Your task to perform on an android device: What's the news in Japan? Image 0: 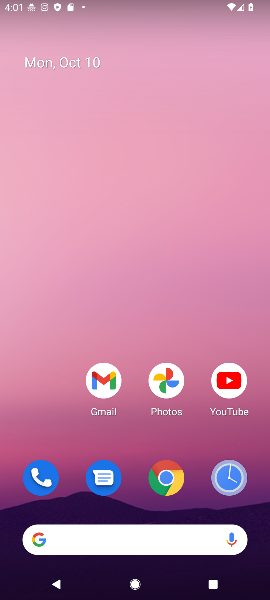
Step 0: click (169, 480)
Your task to perform on an android device: What's the news in Japan? Image 1: 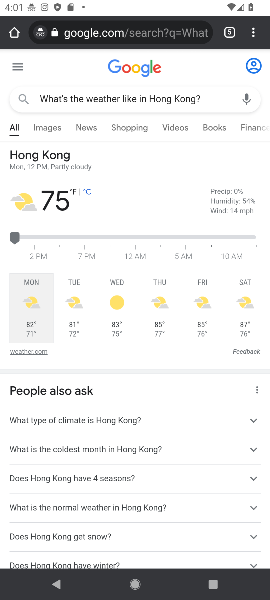
Step 1: click (123, 44)
Your task to perform on an android device: What's the news in Japan? Image 2: 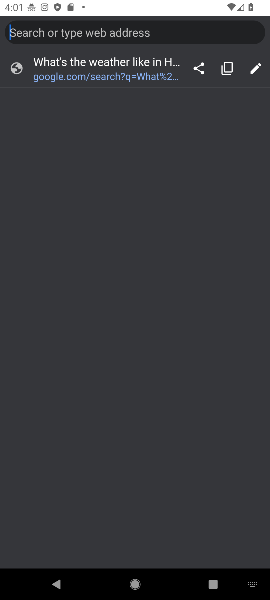
Step 2: type "the news in Japan?"
Your task to perform on an android device: What's the news in Japan? Image 3: 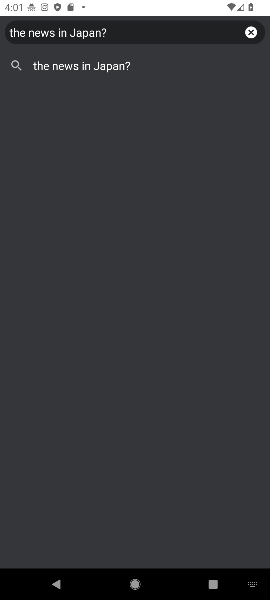
Step 3: click (76, 59)
Your task to perform on an android device: What's the news in Japan? Image 4: 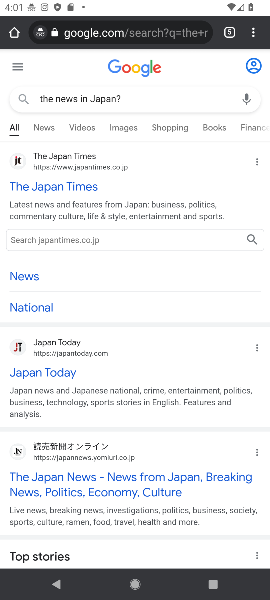
Step 4: click (60, 186)
Your task to perform on an android device: What's the news in Japan? Image 5: 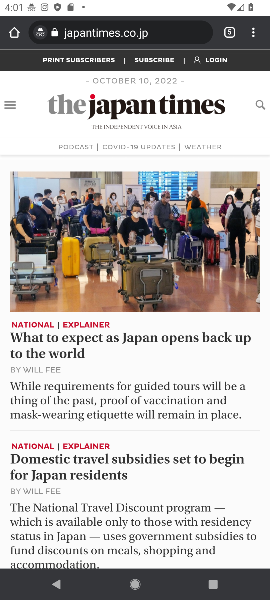
Step 5: task complete